Your task to perform on an android device: create a new album in the google photos Image 0: 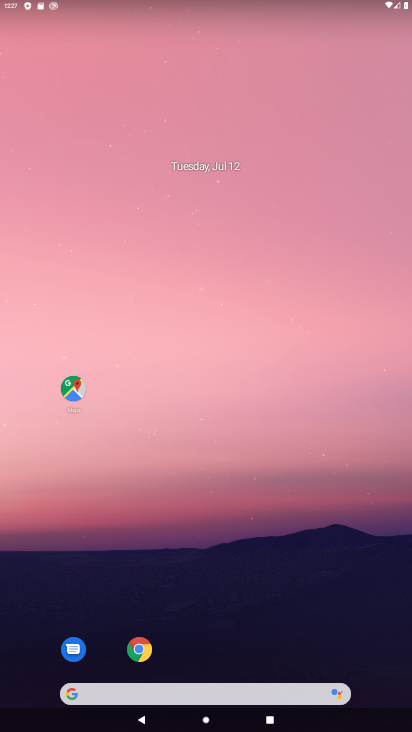
Step 0: drag from (299, 617) to (208, 52)
Your task to perform on an android device: create a new album in the google photos Image 1: 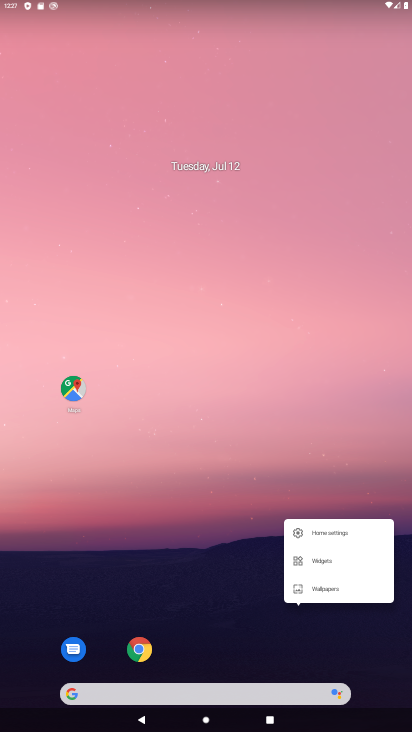
Step 1: click (169, 433)
Your task to perform on an android device: create a new album in the google photos Image 2: 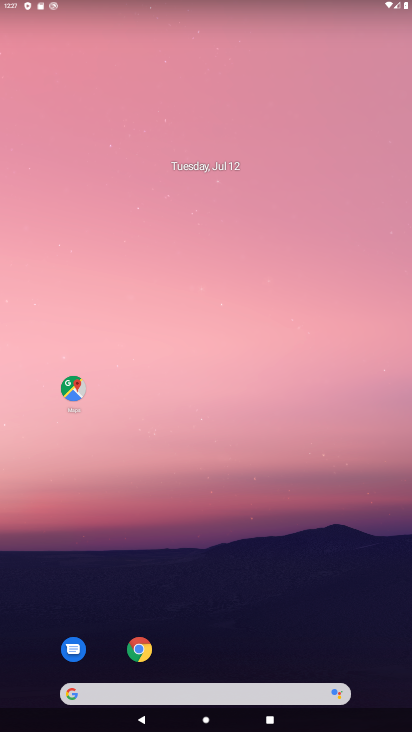
Step 2: click (216, 609)
Your task to perform on an android device: create a new album in the google photos Image 3: 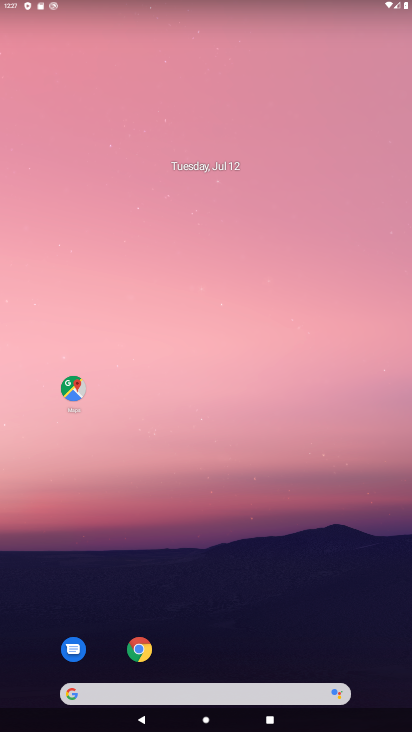
Step 3: drag from (216, 609) to (211, 75)
Your task to perform on an android device: create a new album in the google photos Image 4: 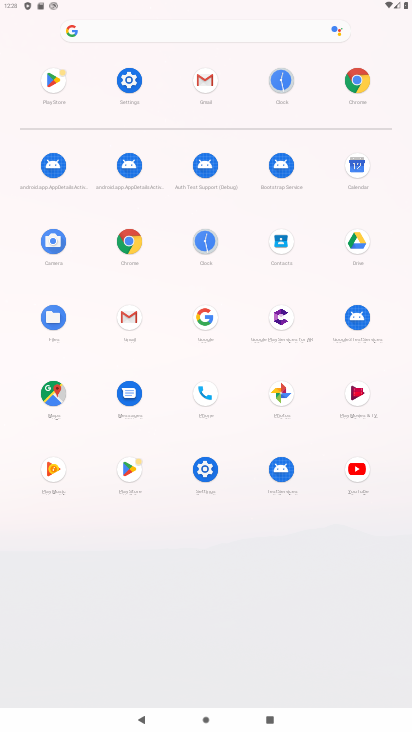
Step 4: click (276, 390)
Your task to perform on an android device: create a new album in the google photos Image 5: 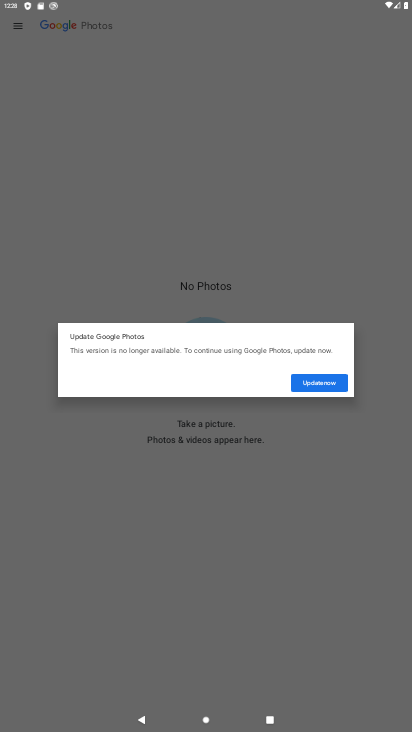
Step 5: click (298, 390)
Your task to perform on an android device: create a new album in the google photos Image 6: 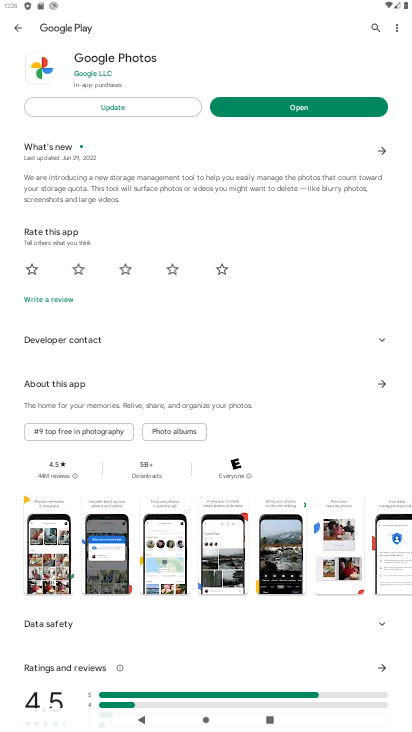
Step 6: click (94, 110)
Your task to perform on an android device: create a new album in the google photos Image 7: 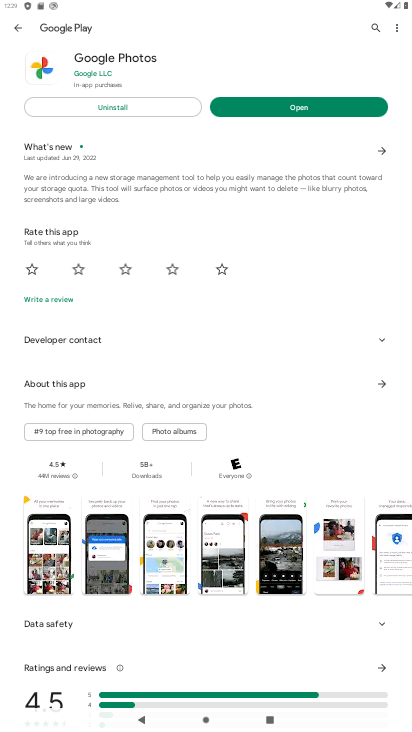
Step 7: click (262, 111)
Your task to perform on an android device: create a new album in the google photos Image 8: 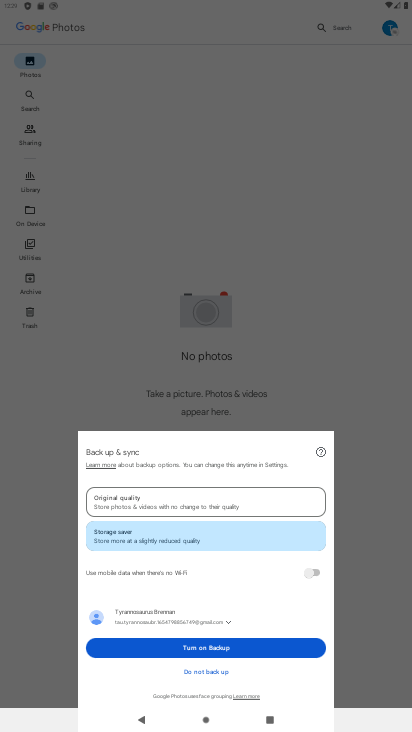
Step 8: click (144, 635)
Your task to perform on an android device: create a new album in the google photos Image 9: 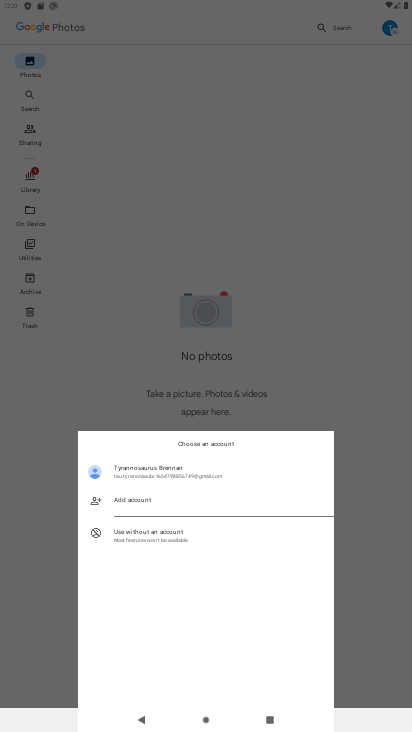
Step 9: click (155, 476)
Your task to perform on an android device: create a new album in the google photos Image 10: 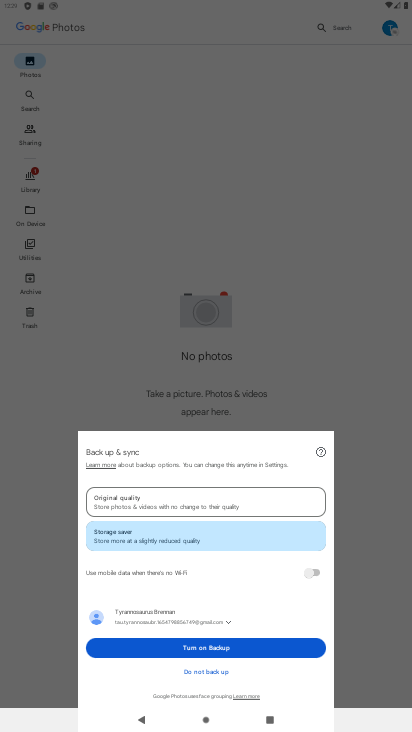
Step 10: click (223, 653)
Your task to perform on an android device: create a new album in the google photos Image 11: 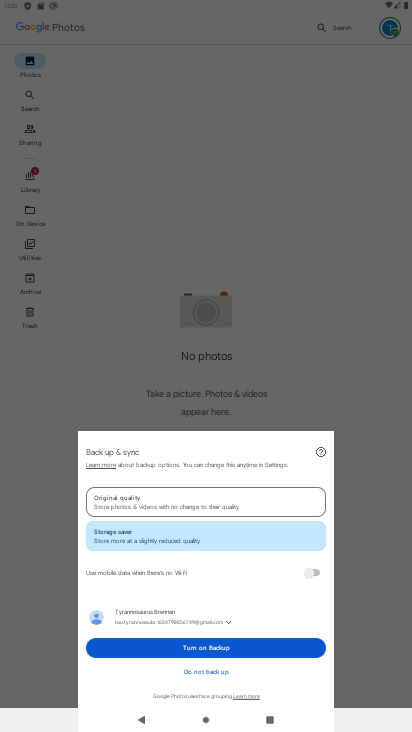
Step 11: click (223, 653)
Your task to perform on an android device: create a new album in the google photos Image 12: 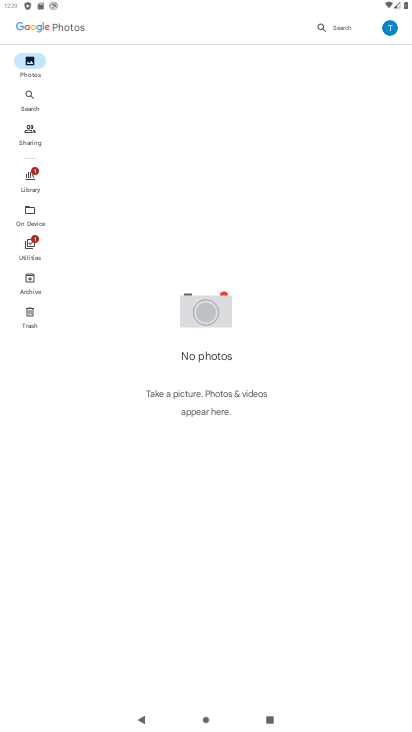
Step 12: click (373, 31)
Your task to perform on an android device: create a new album in the google photos Image 13: 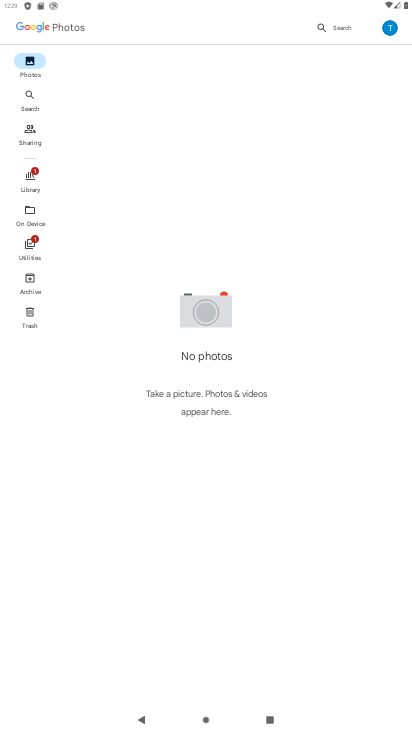
Step 13: click (383, 30)
Your task to perform on an android device: create a new album in the google photos Image 14: 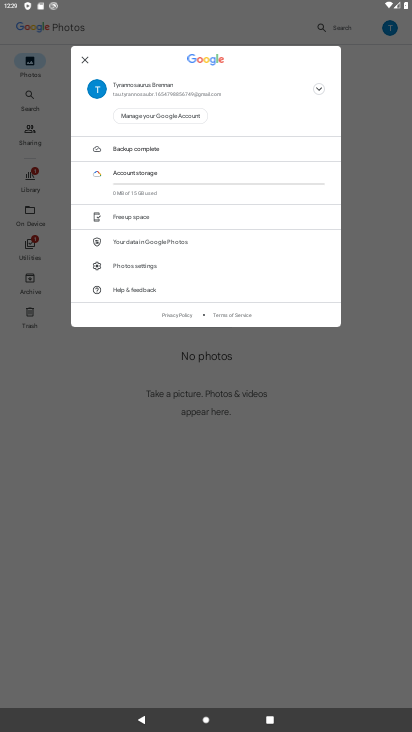
Step 14: task complete